Your task to perform on an android device: empty trash in google photos Image 0: 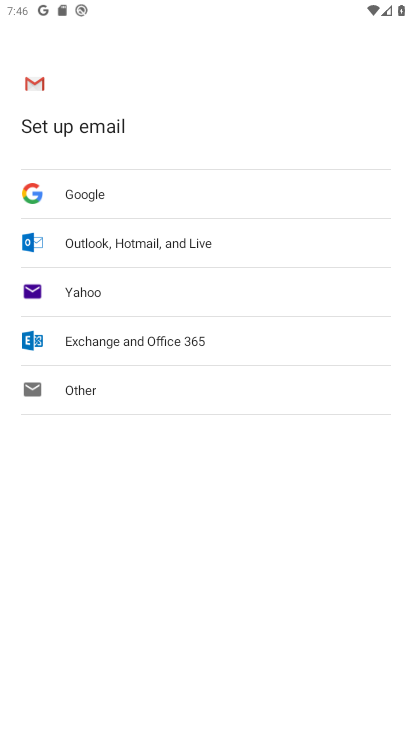
Step 0: press home button
Your task to perform on an android device: empty trash in google photos Image 1: 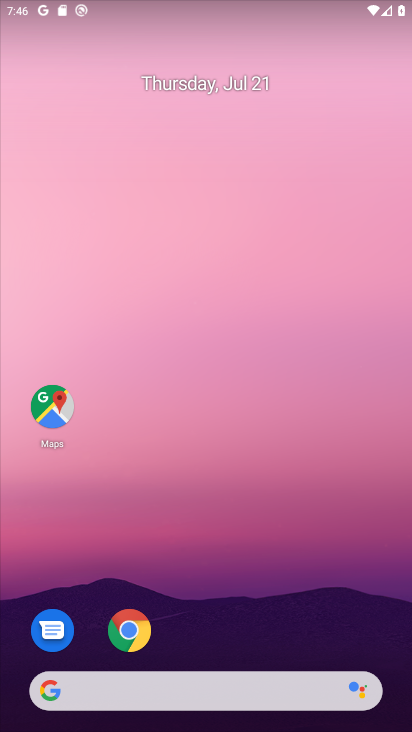
Step 1: drag from (180, 681) to (87, 28)
Your task to perform on an android device: empty trash in google photos Image 2: 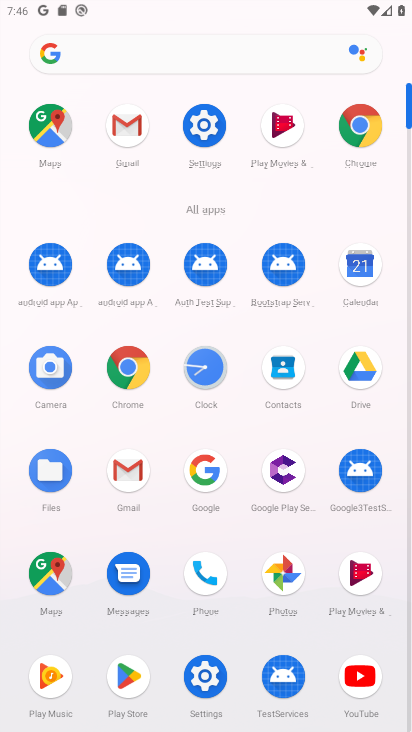
Step 2: click (280, 574)
Your task to perform on an android device: empty trash in google photos Image 3: 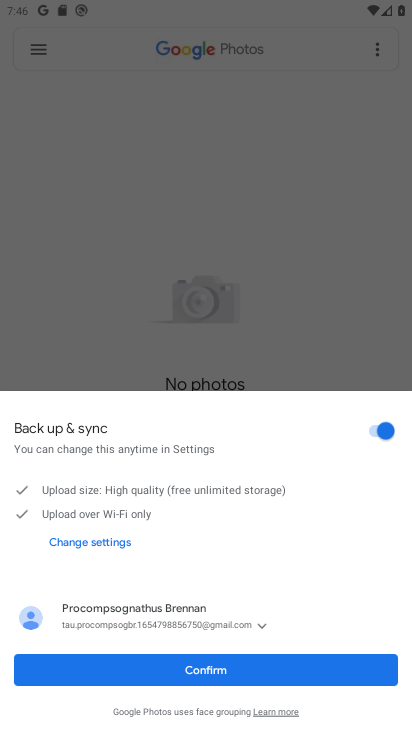
Step 3: click (237, 664)
Your task to perform on an android device: empty trash in google photos Image 4: 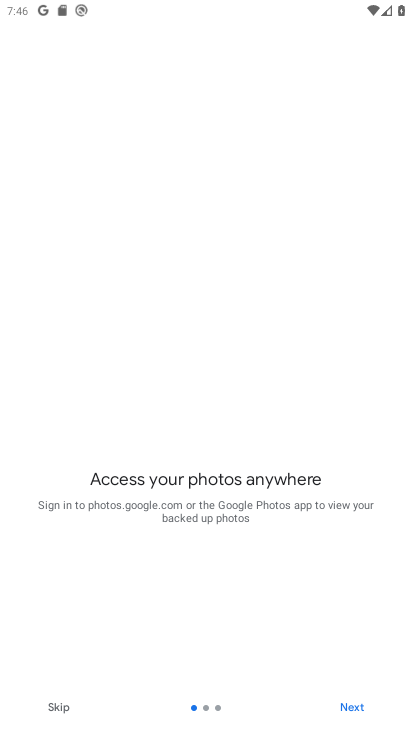
Step 4: click (45, 704)
Your task to perform on an android device: empty trash in google photos Image 5: 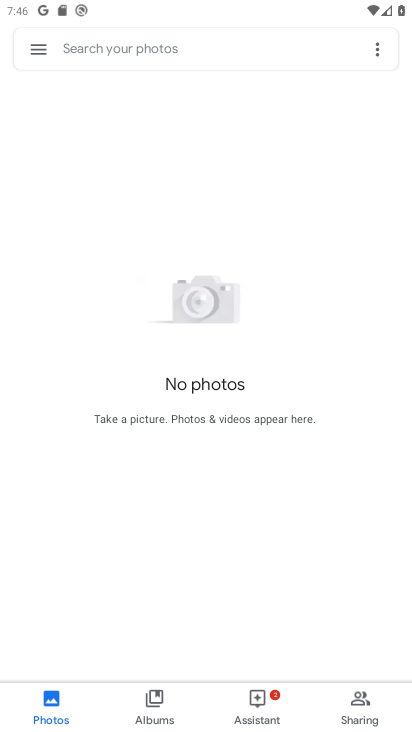
Step 5: click (36, 54)
Your task to perform on an android device: empty trash in google photos Image 6: 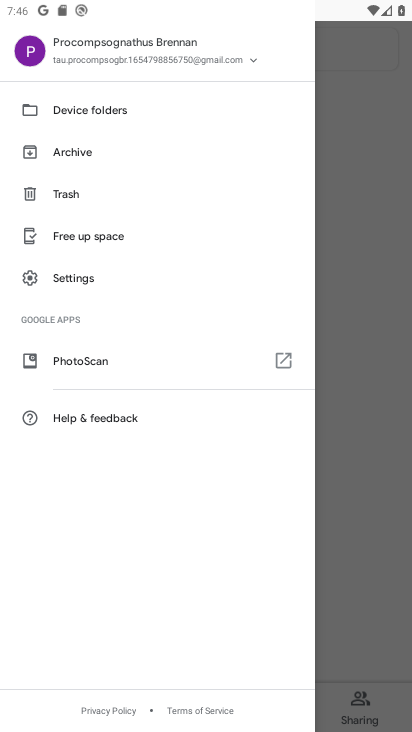
Step 6: click (62, 184)
Your task to perform on an android device: empty trash in google photos Image 7: 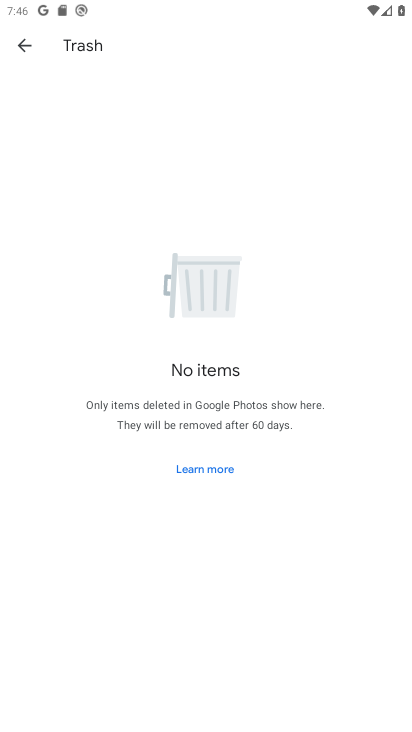
Step 7: task complete